Your task to perform on an android device: turn on priority inbox in the gmail app Image 0: 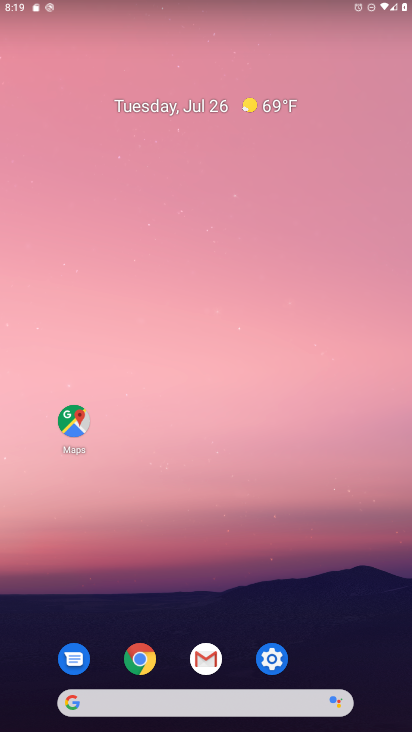
Step 0: drag from (258, 705) to (222, 122)
Your task to perform on an android device: turn on priority inbox in the gmail app Image 1: 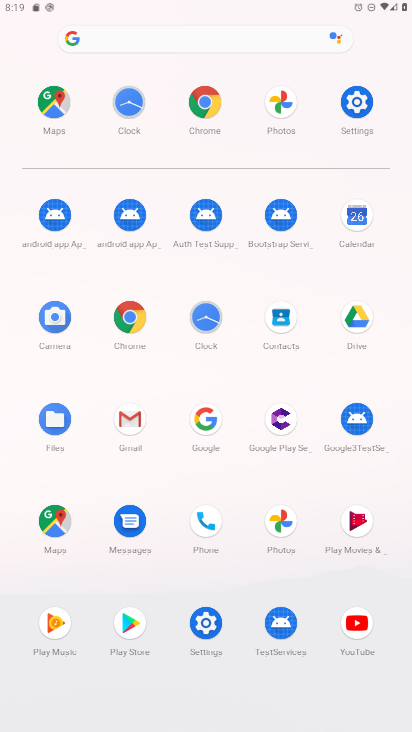
Step 1: click (134, 440)
Your task to perform on an android device: turn on priority inbox in the gmail app Image 2: 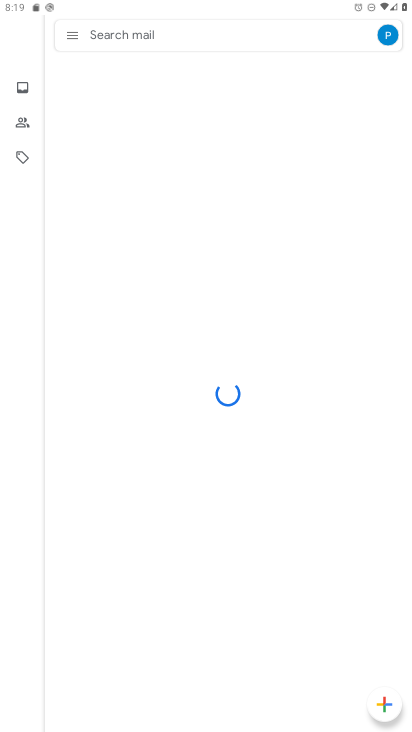
Step 2: click (70, 33)
Your task to perform on an android device: turn on priority inbox in the gmail app Image 3: 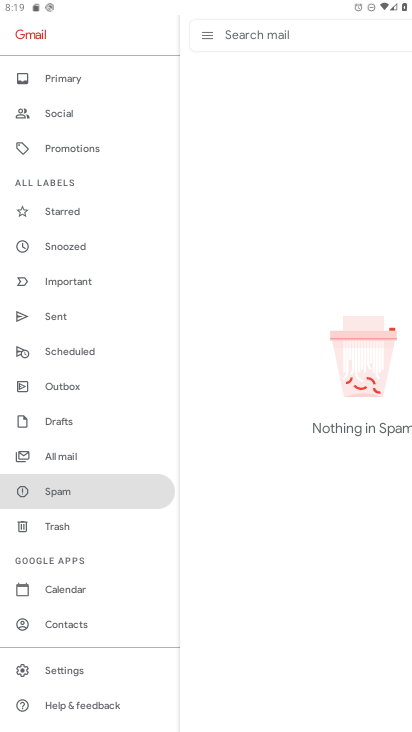
Step 3: click (81, 664)
Your task to perform on an android device: turn on priority inbox in the gmail app Image 4: 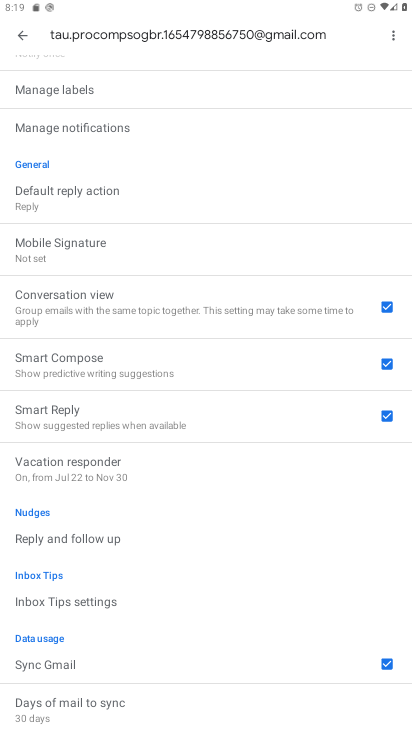
Step 4: drag from (61, 208) to (62, 314)
Your task to perform on an android device: turn on priority inbox in the gmail app Image 5: 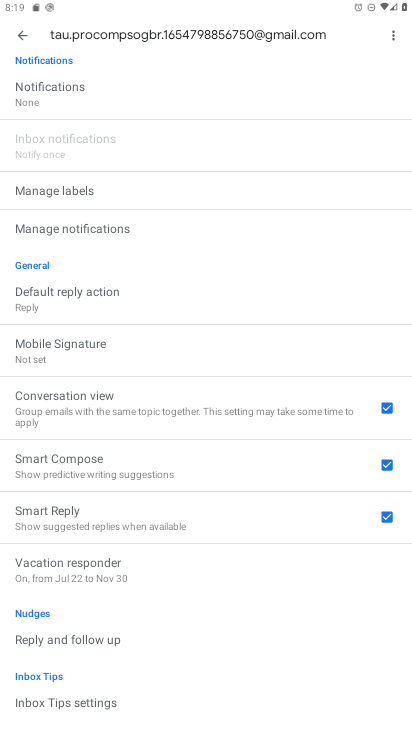
Step 5: drag from (63, 120) to (127, 300)
Your task to perform on an android device: turn on priority inbox in the gmail app Image 6: 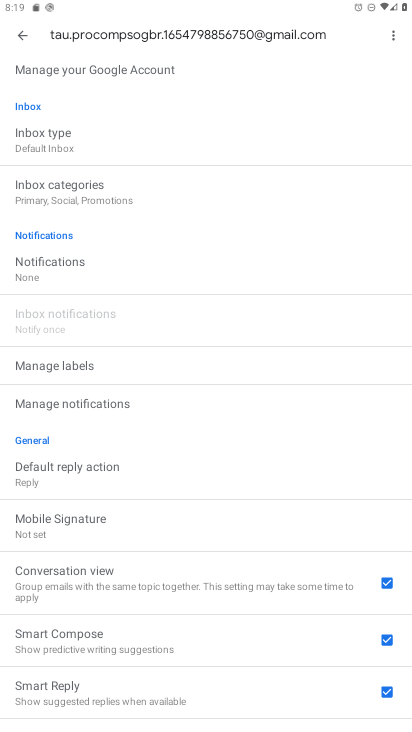
Step 6: click (50, 148)
Your task to perform on an android device: turn on priority inbox in the gmail app Image 7: 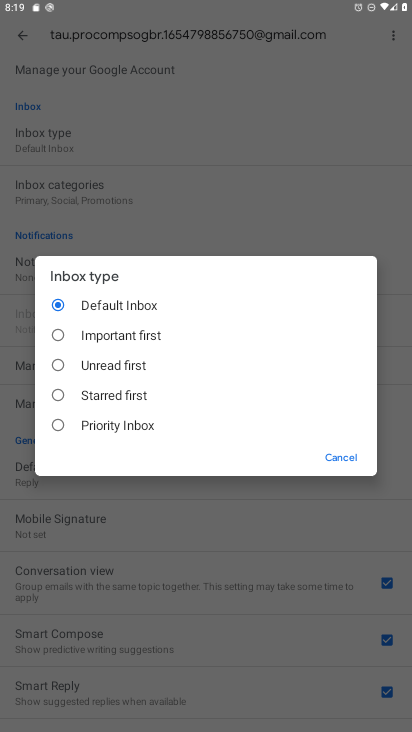
Step 7: click (105, 435)
Your task to perform on an android device: turn on priority inbox in the gmail app Image 8: 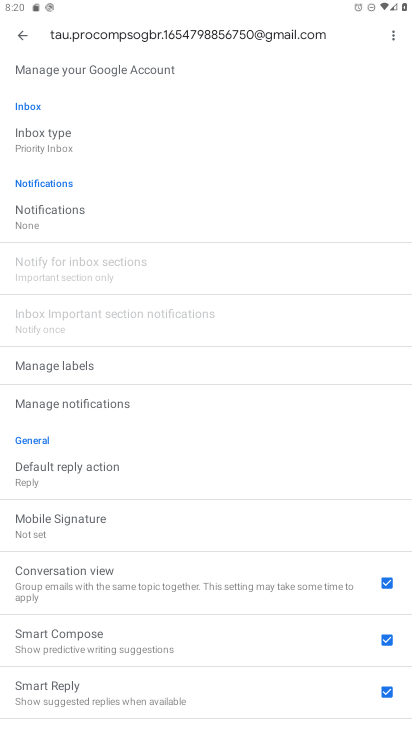
Step 8: task complete